Your task to perform on an android device: What's the weather going to be tomorrow? Image 0: 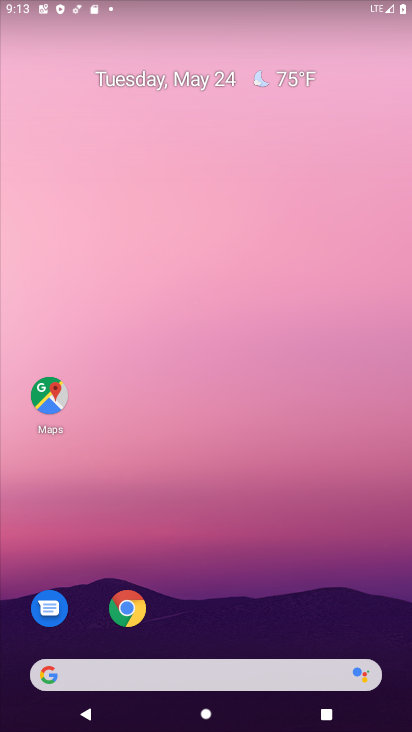
Step 0: click (182, 84)
Your task to perform on an android device: What's the weather going to be tomorrow? Image 1: 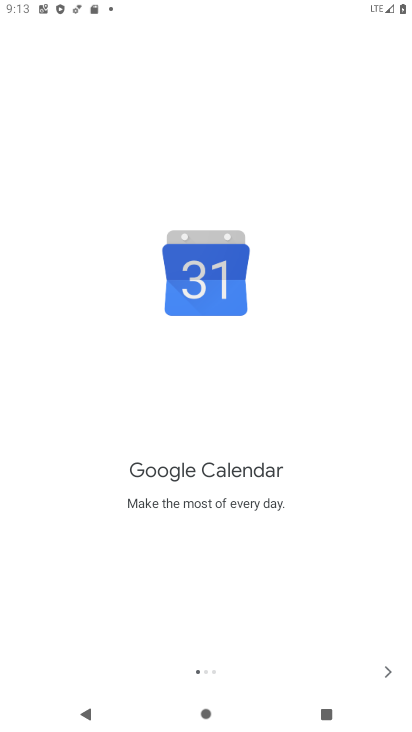
Step 1: click (384, 662)
Your task to perform on an android device: What's the weather going to be tomorrow? Image 2: 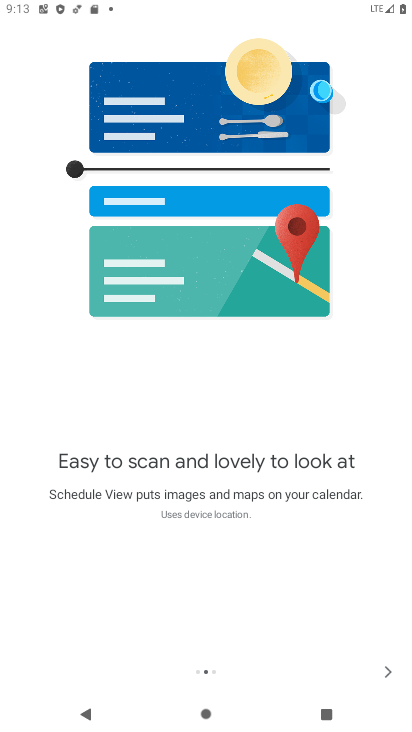
Step 2: click (385, 671)
Your task to perform on an android device: What's the weather going to be tomorrow? Image 3: 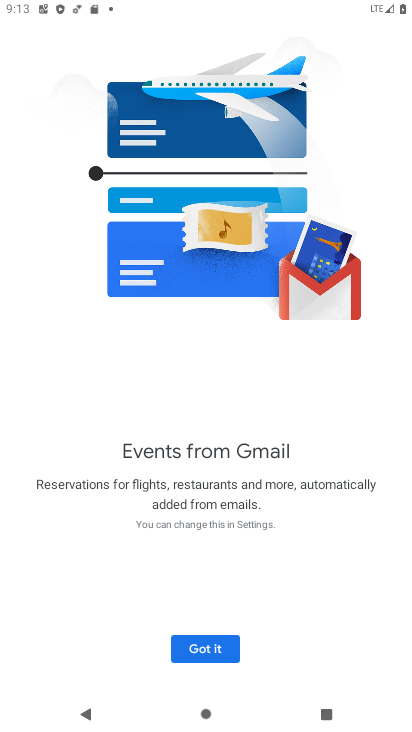
Step 3: click (204, 645)
Your task to perform on an android device: What's the weather going to be tomorrow? Image 4: 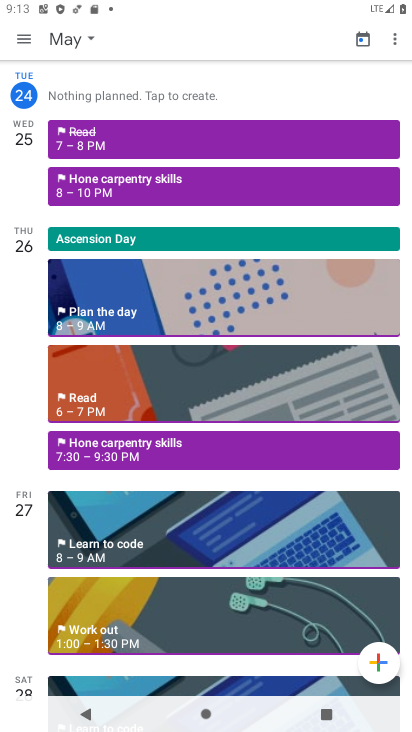
Step 4: task complete